Your task to perform on an android device: Go to Reddit.com Image 0: 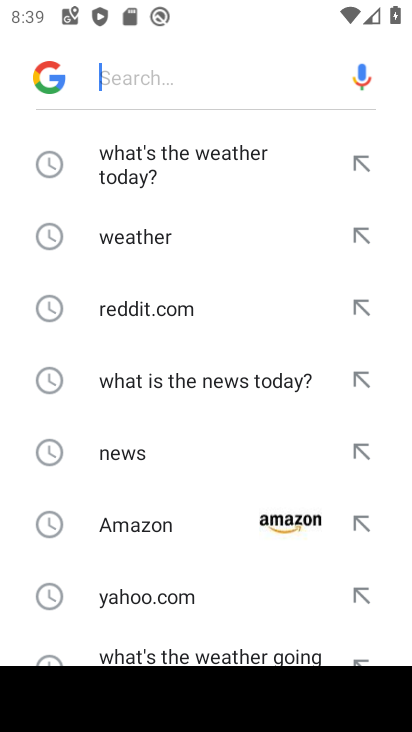
Step 0: press home button
Your task to perform on an android device: Go to Reddit.com Image 1: 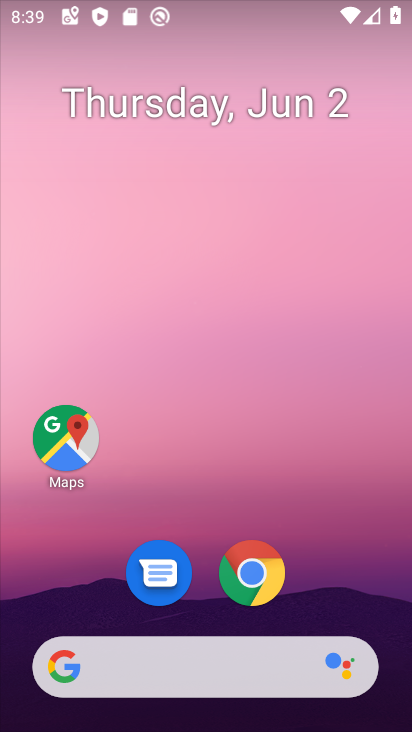
Step 1: click (233, 592)
Your task to perform on an android device: Go to Reddit.com Image 2: 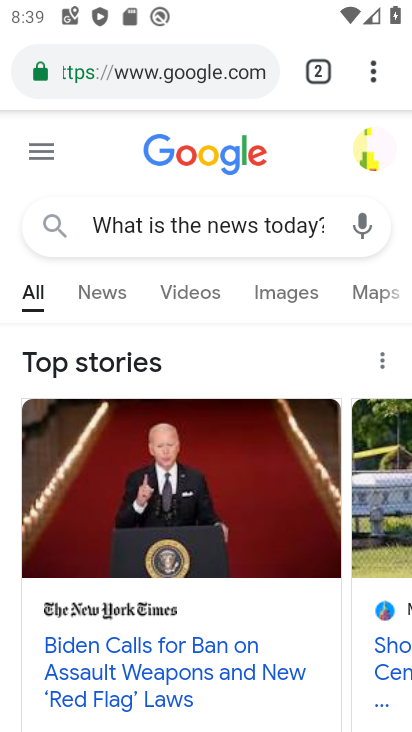
Step 2: click (240, 75)
Your task to perform on an android device: Go to Reddit.com Image 3: 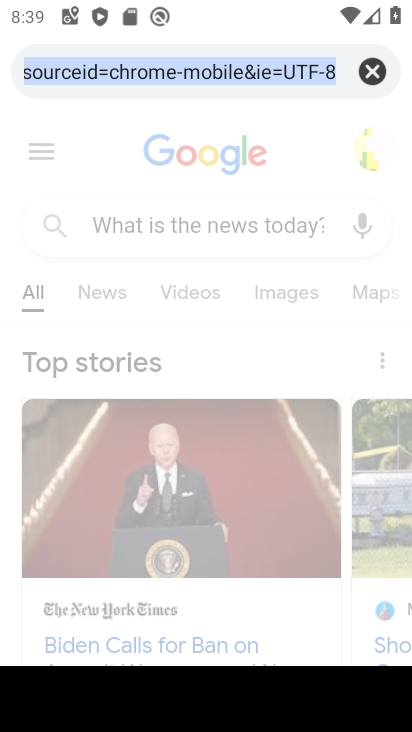
Step 3: click (367, 71)
Your task to perform on an android device: Go to Reddit.com Image 4: 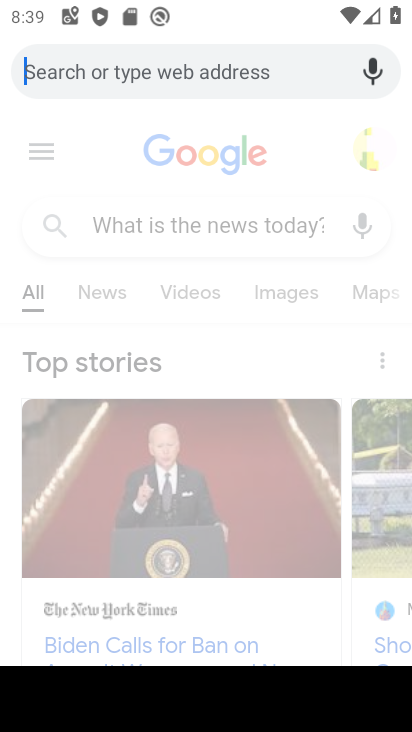
Step 4: type "Reddit.com"
Your task to perform on an android device: Go to Reddit.com Image 5: 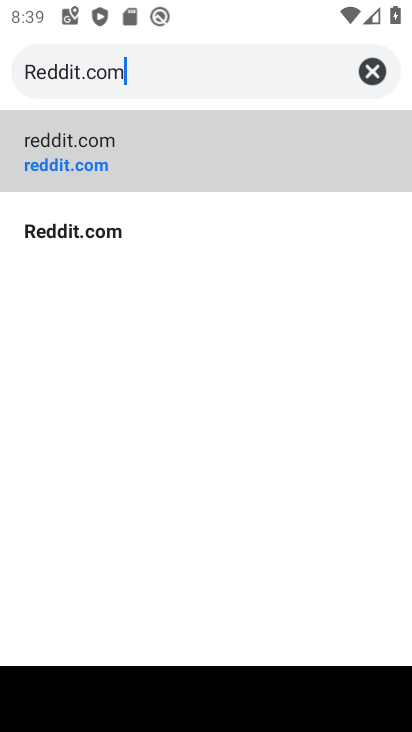
Step 5: type ""
Your task to perform on an android device: Go to Reddit.com Image 6: 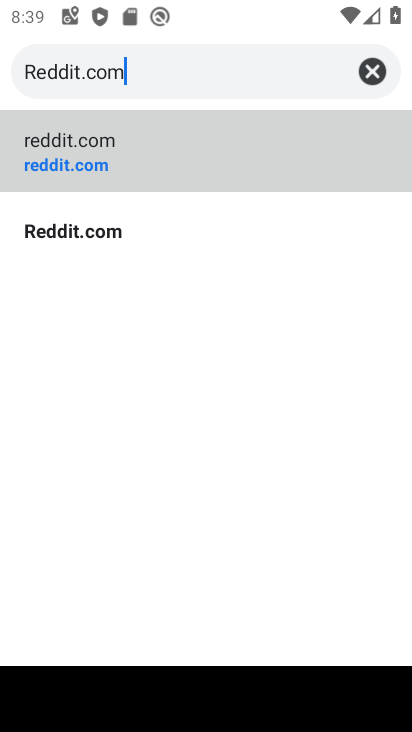
Step 6: click (262, 137)
Your task to perform on an android device: Go to Reddit.com Image 7: 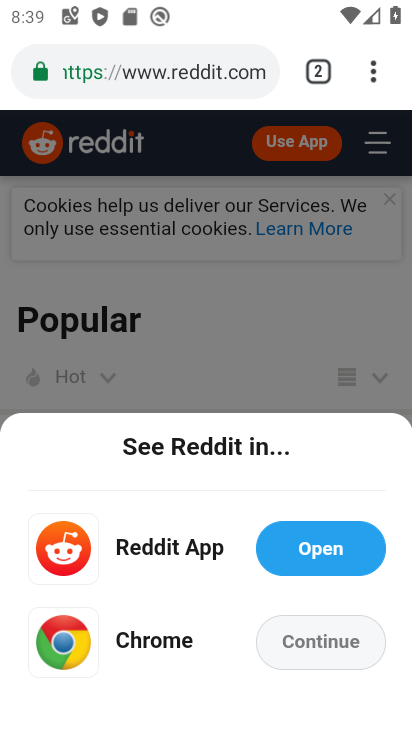
Step 7: task complete